Your task to perform on an android device: Open calendar and show me the fourth week of next month Image 0: 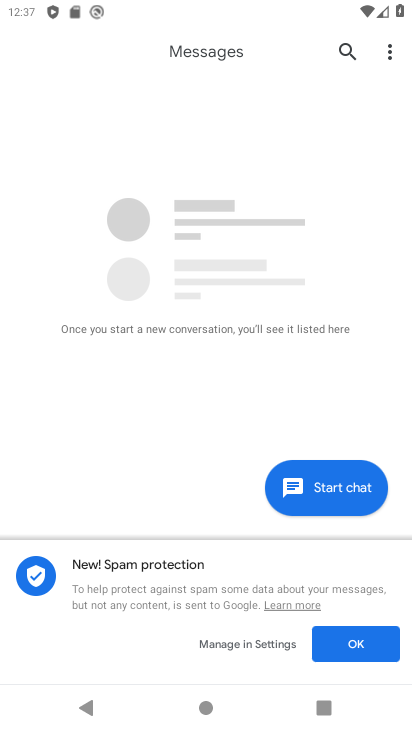
Step 0: press home button
Your task to perform on an android device: Open calendar and show me the fourth week of next month Image 1: 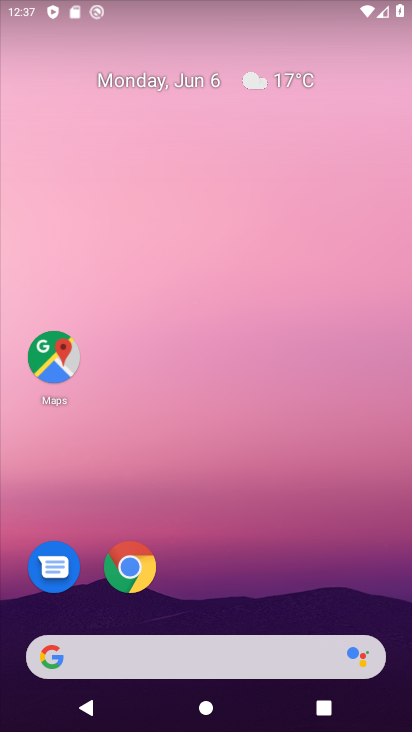
Step 1: drag from (245, 730) to (218, 87)
Your task to perform on an android device: Open calendar and show me the fourth week of next month Image 2: 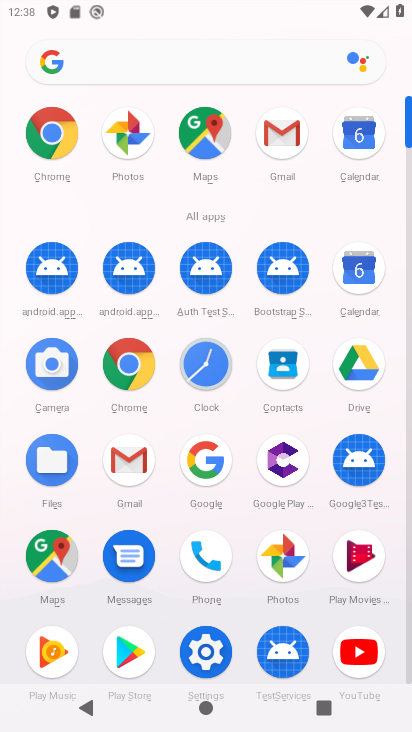
Step 2: click (363, 286)
Your task to perform on an android device: Open calendar and show me the fourth week of next month Image 3: 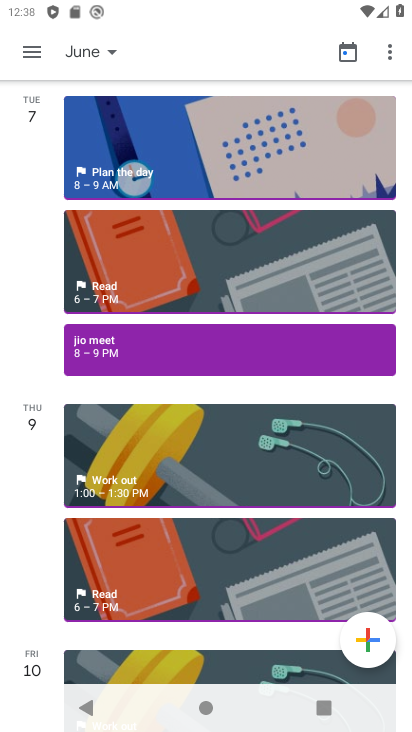
Step 3: click (112, 48)
Your task to perform on an android device: Open calendar and show me the fourth week of next month Image 4: 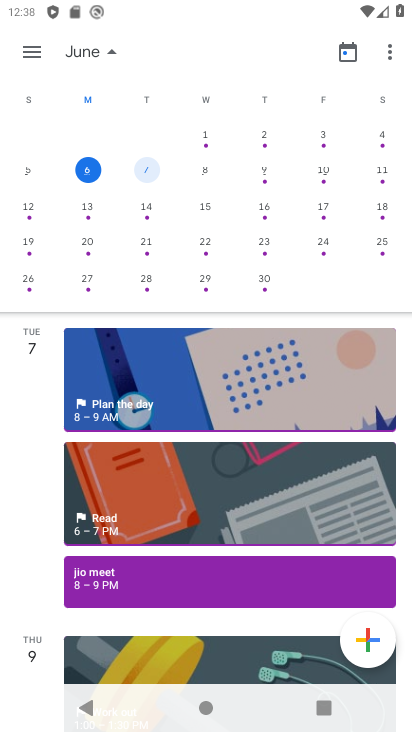
Step 4: drag from (385, 198) to (125, 183)
Your task to perform on an android device: Open calendar and show me the fourth week of next month Image 5: 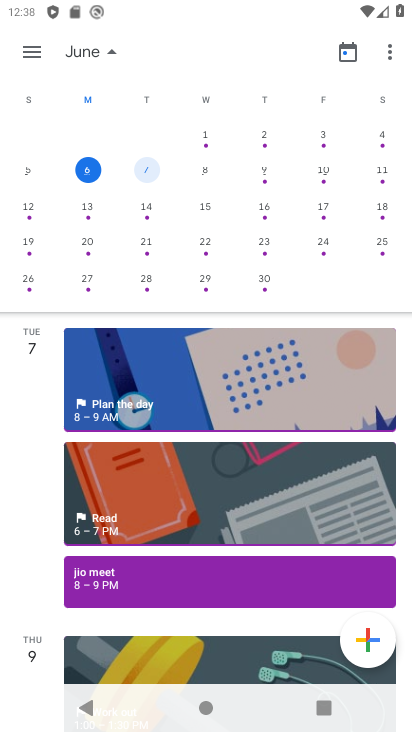
Step 5: click (85, 275)
Your task to perform on an android device: Open calendar and show me the fourth week of next month Image 6: 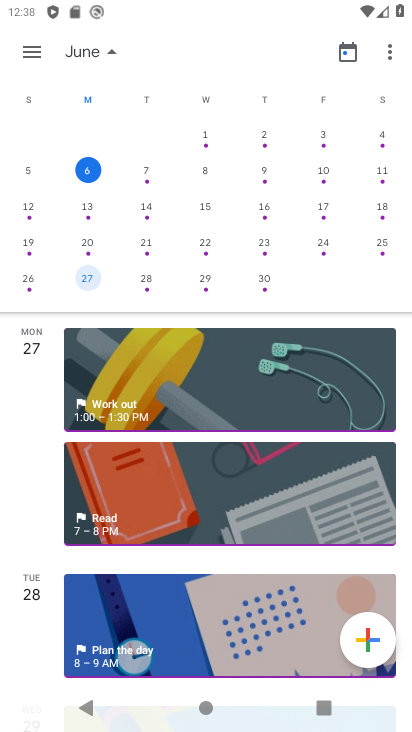
Step 6: click (29, 55)
Your task to perform on an android device: Open calendar and show me the fourth week of next month Image 7: 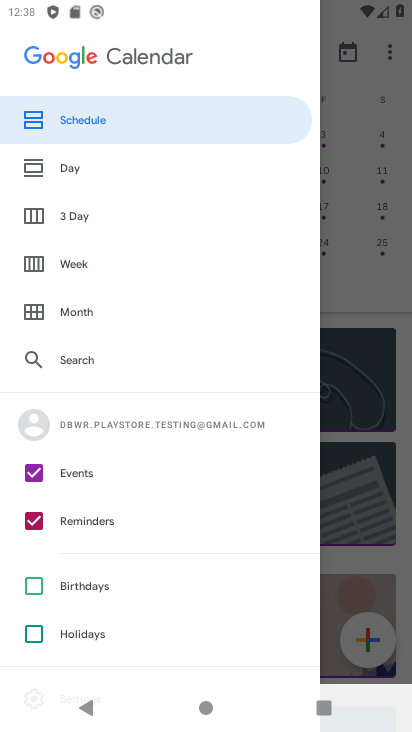
Step 7: click (73, 263)
Your task to perform on an android device: Open calendar and show me the fourth week of next month Image 8: 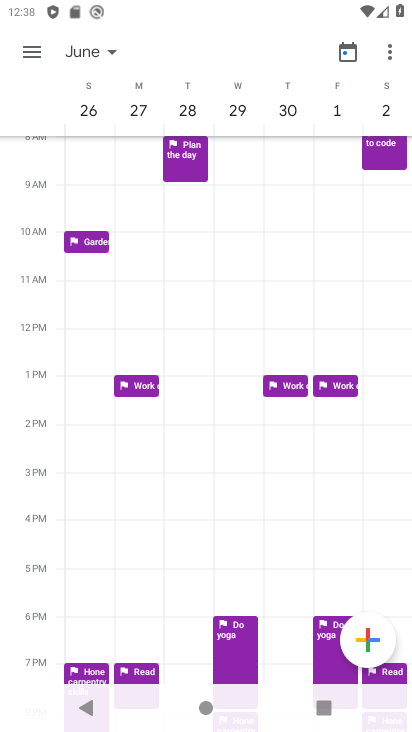
Step 8: task complete